Your task to perform on an android device: clear all cookies in the chrome app Image 0: 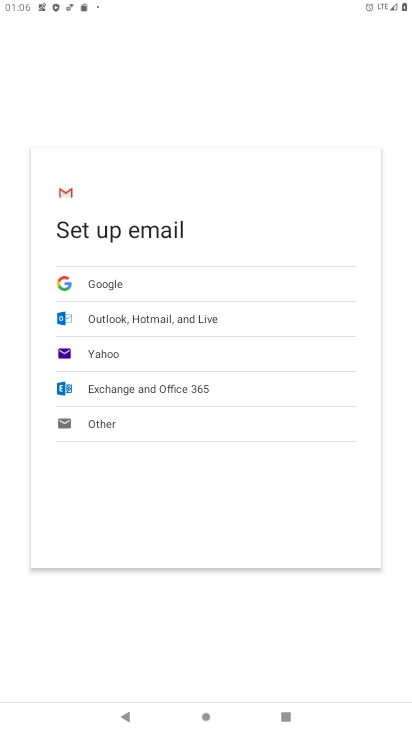
Step 0: press home button
Your task to perform on an android device: clear all cookies in the chrome app Image 1: 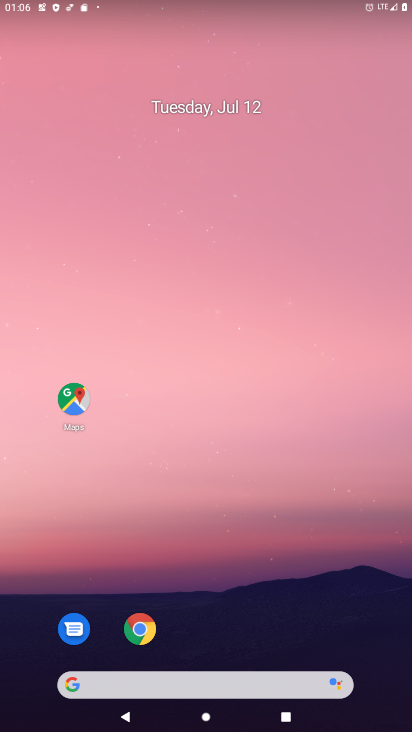
Step 1: click (147, 630)
Your task to perform on an android device: clear all cookies in the chrome app Image 2: 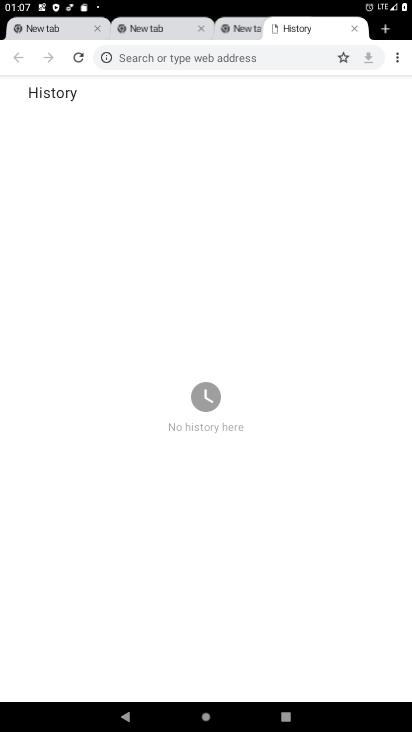
Step 2: click (392, 56)
Your task to perform on an android device: clear all cookies in the chrome app Image 3: 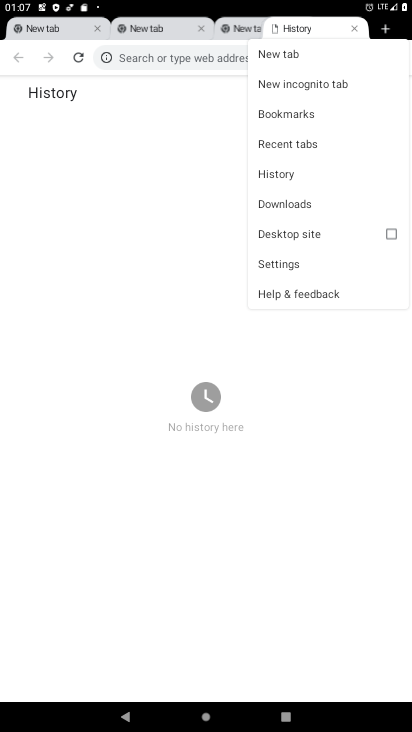
Step 3: click (287, 170)
Your task to perform on an android device: clear all cookies in the chrome app Image 4: 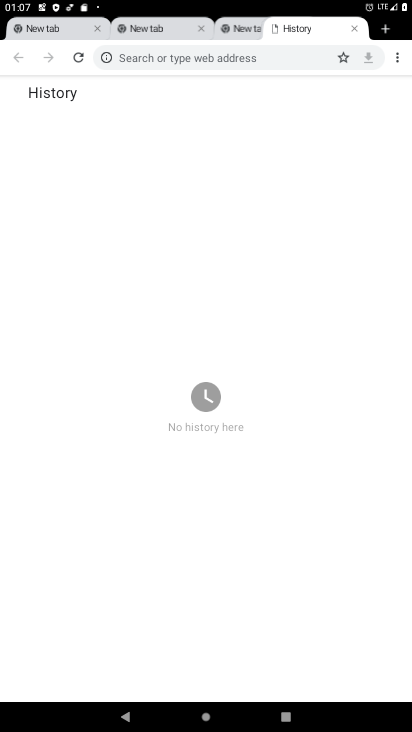
Step 4: click (390, 50)
Your task to perform on an android device: clear all cookies in the chrome app Image 5: 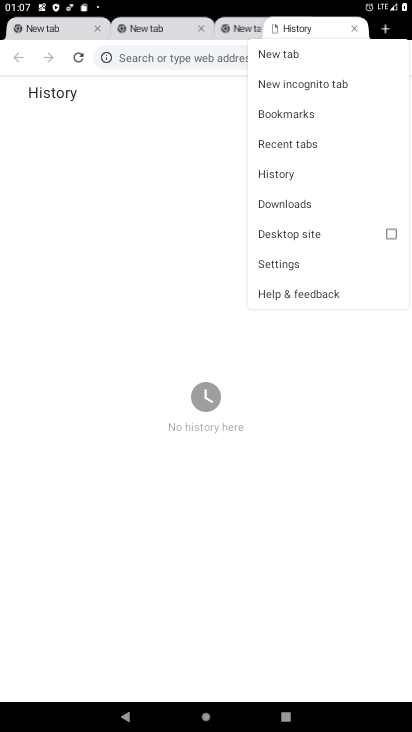
Step 5: task complete